Your task to perform on an android device: What's the news in Brunei? Image 0: 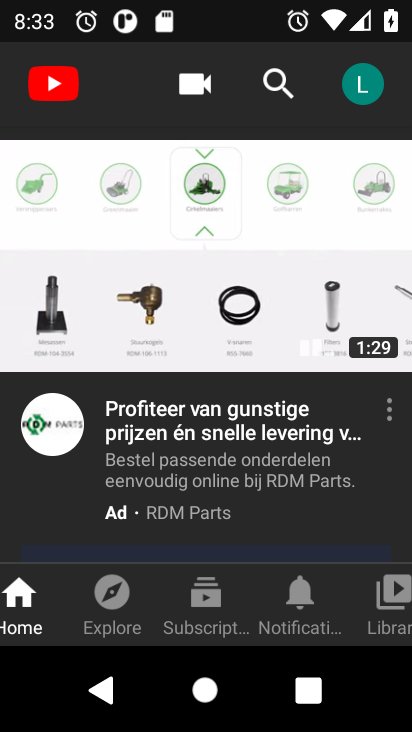
Step 0: task complete